Your task to perform on an android device: open a new tab in the chrome app Image 0: 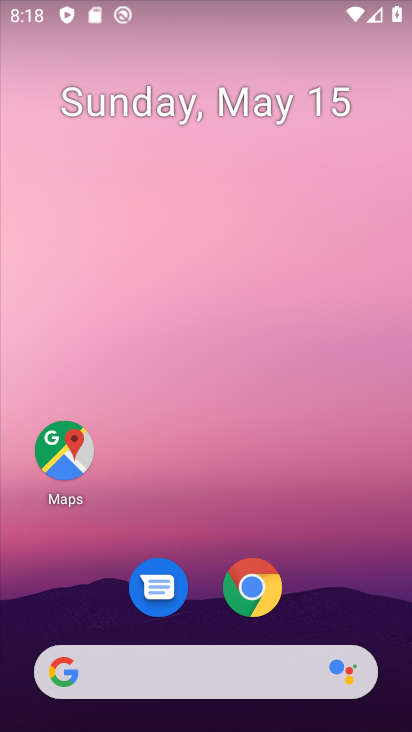
Step 0: drag from (372, 601) to (316, 26)
Your task to perform on an android device: open a new tab in the chrome app Image 1: 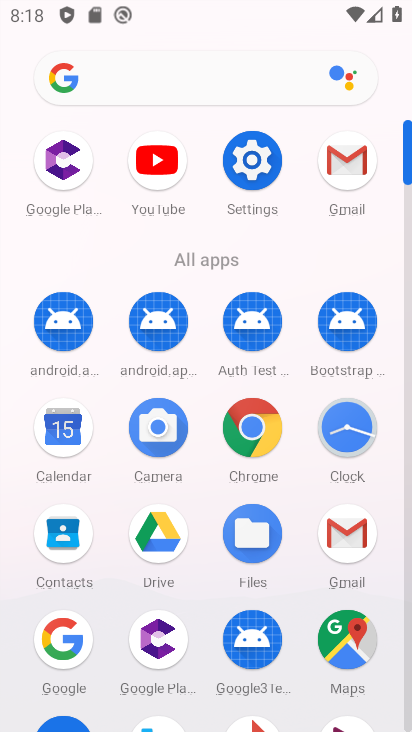
Step 1: click (261, 440)
Your task to perform on an android device: open a new tab in the chrome app Image 2: 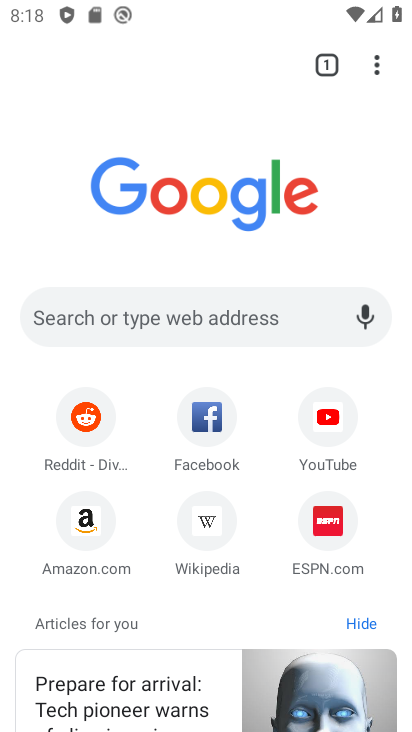
Step 2: click (370, 60)
Your task to perform on an android device: open a new tab in the chrome app Image 3: 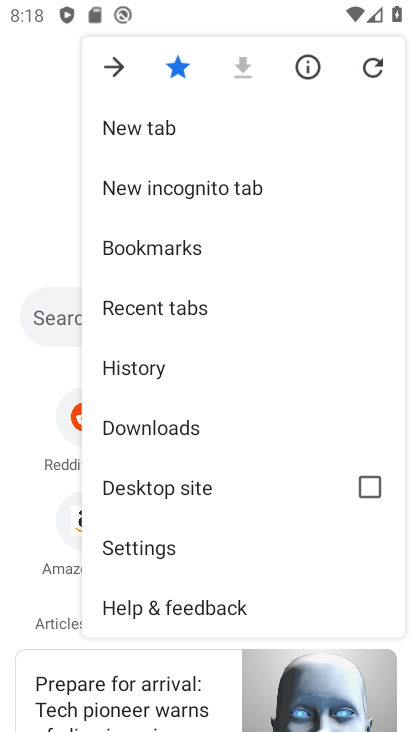
Step 3: click (221, 138)
Your task to perform on an android device: open a new tab in the chrome app Image 4: 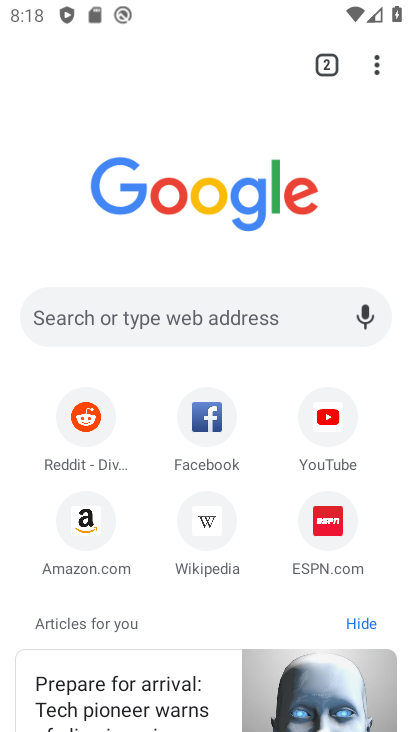
Step 4: task complete